Your task to perform on an android device: toggle notifications settings in the gmail app Image 0: 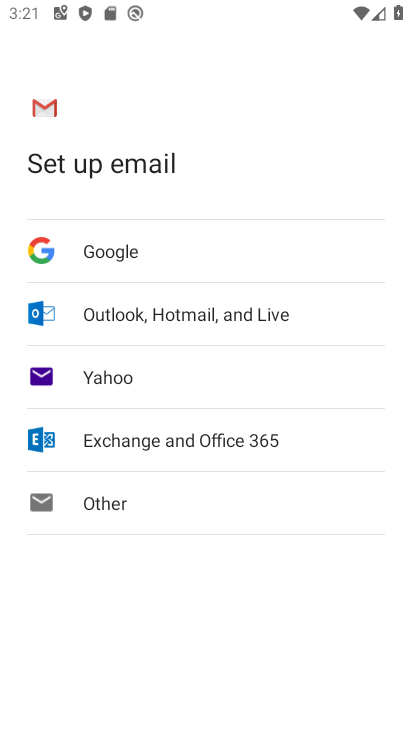
Step 0: press back button
Your task to perform on an android device: toggle notifications settings in the gmail app Image 1: 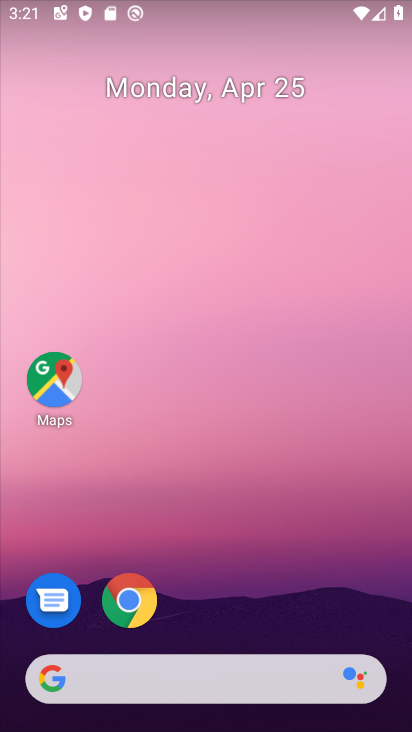
Step 1: drag from (254, 472) to (276, 29)
Your task to perform on an android device: toggle notifications settings in the gmail app Image 2: 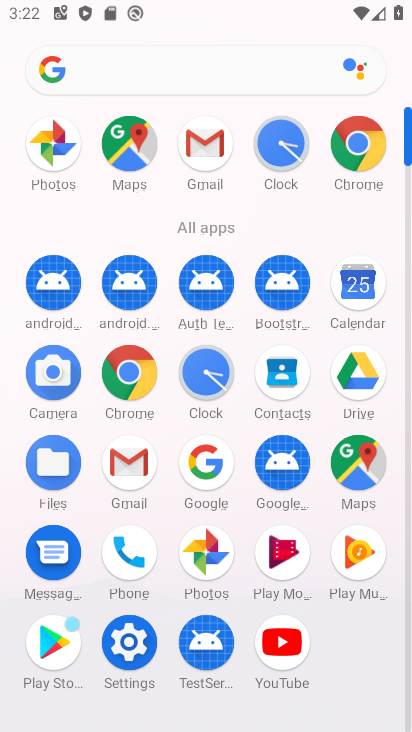
Step 2: drag from (8, 498) to (20, 220)
Your task to perform on an android device: toggle notifications settings in the gmail app Image 3: 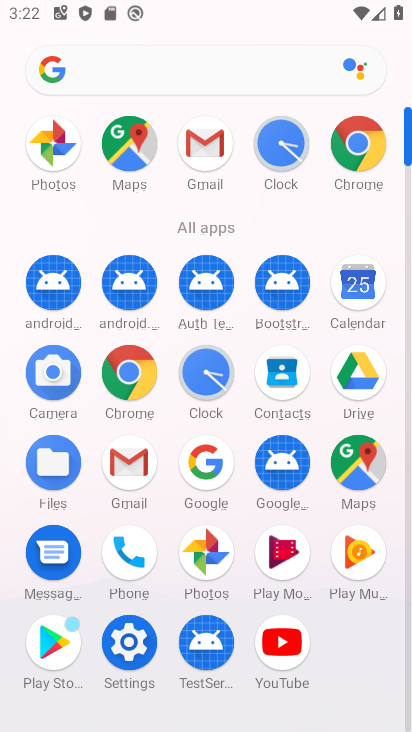
Step 3: click (130, 456)
Your task to perform on an android device: toggle notifications settings in the gmail app Image 4: 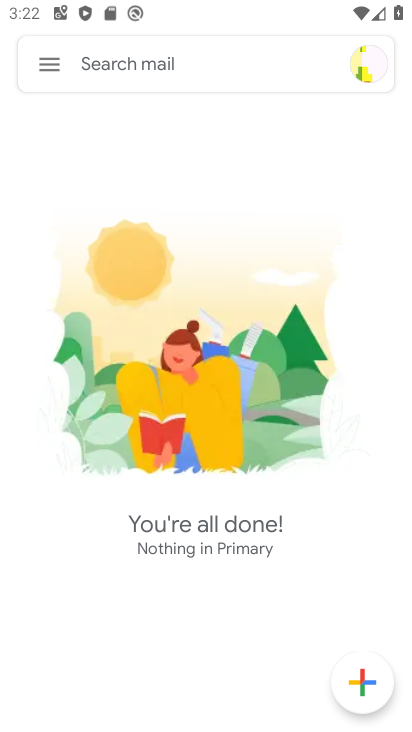
Step 4: click (62, 70)
Your task to perform on an android device: toggle notifications settings in the gmail app Image 5: 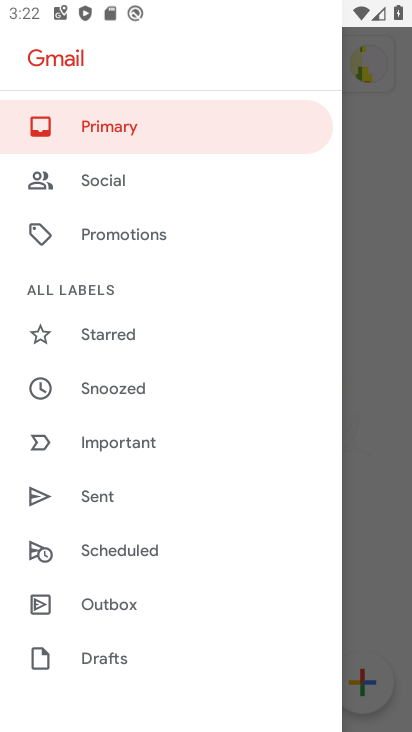
Step 5: drag from (174, 243) to (179, 171)
Your task to perform on an android device: toggle notifications settings in the gmail app Image 6: 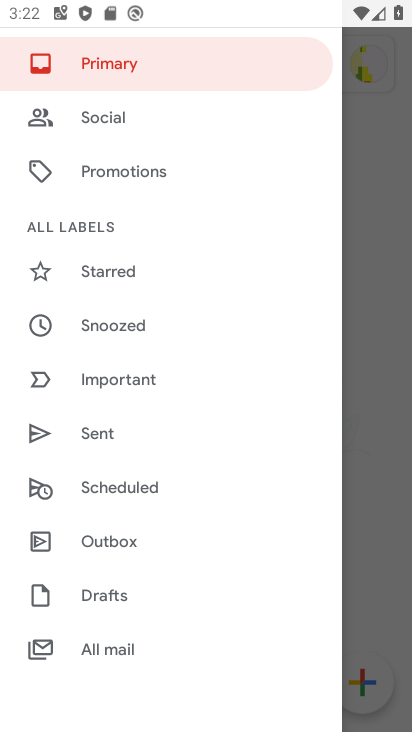
Step 6: drag from (168, 503) to (191, 198)
Your task to perform on an android device: toggle notifications settings in the gmail app Image 7: 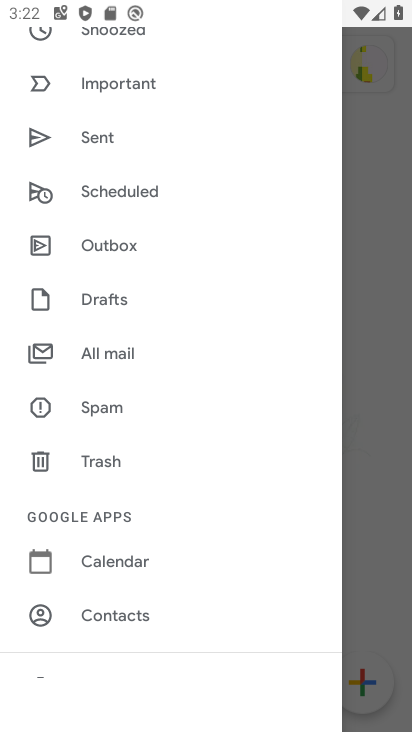
Step 7: drag from (174, 523) to (187, 86)
Your task to perform on an android device: toggle notifications settings in the gmail app Image 8: 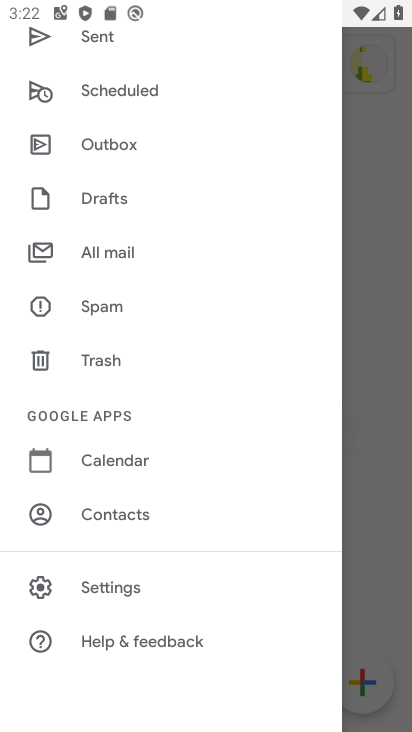
Step 8: drag from (205, 513) to (215, 64)
Your task to perform on an android device: toggle notifications settings in the gmail app Image 9: 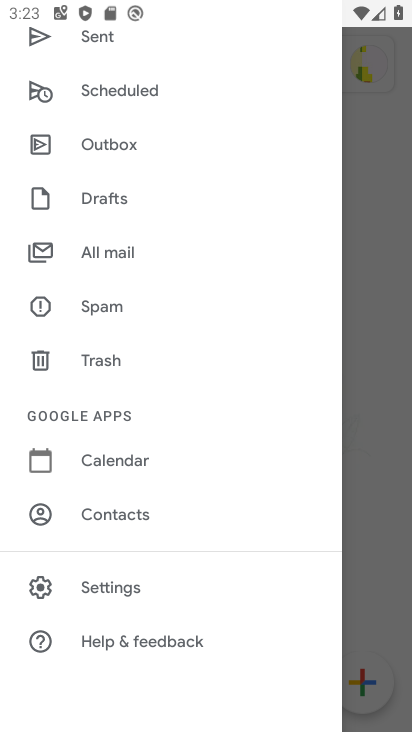
Step 9: click (141, 587)
Your task to perform on an android device: toggle notifications settings in the gmail app Image 10: 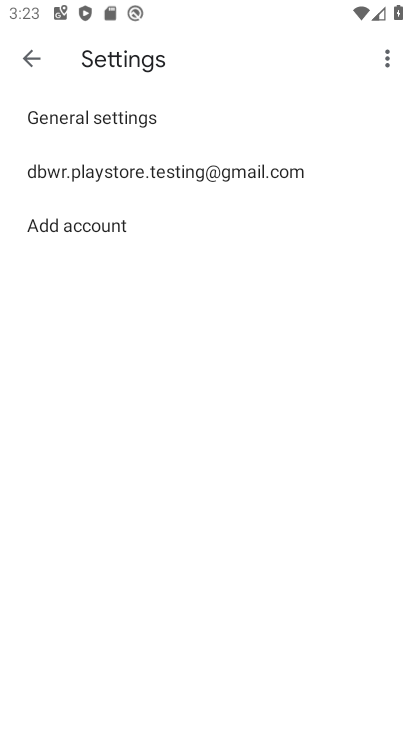
Step 10: click (179, 167)
Your task to perform on an android device: toggle notifications settings in the gmail app Image 11: 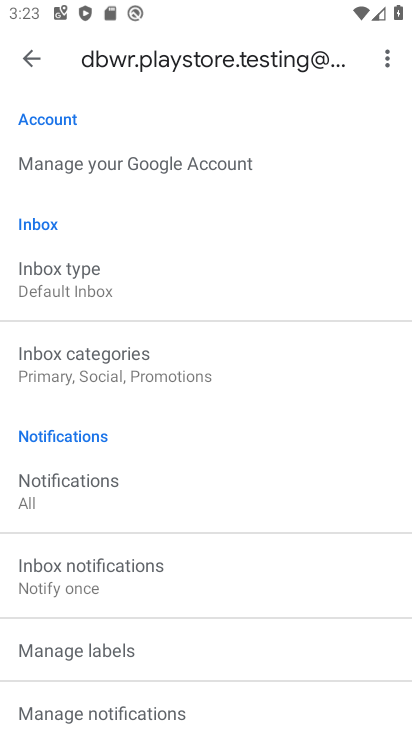
Step 11: drag from (226, 482) to (219, 193)
Your task to perform on an android device: toggle notifications settings in the gmail app Image 12: 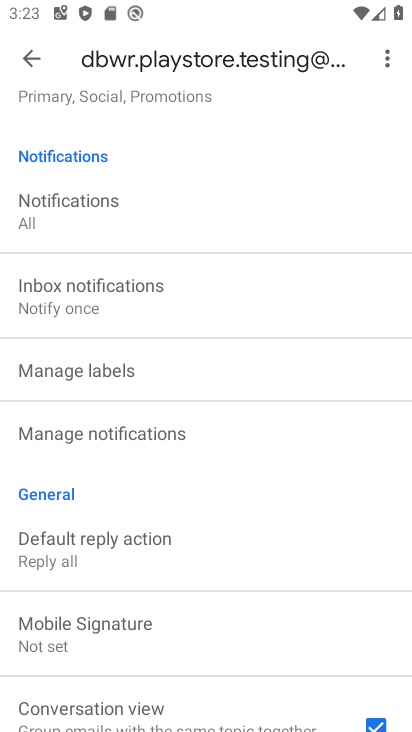
Step 12: drag from (231, 158) to (225, 546)
Your task to perform on an android device: toggle notifications settings in the gmail app Image 13: 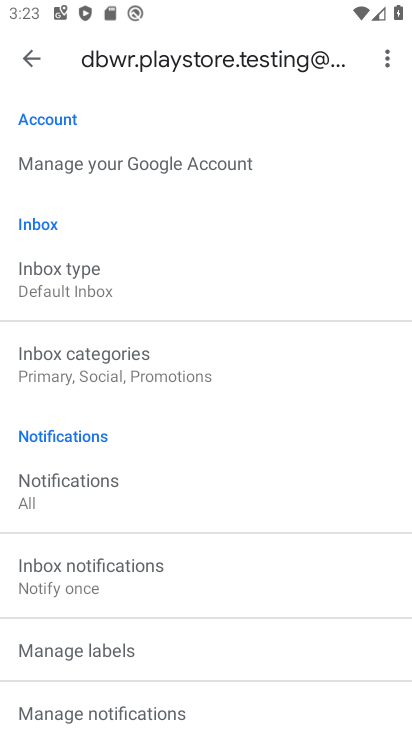
Step 13: drag from (274, 203) to (255, 574)
Your task to perform on an android device: toggle notifications settings in the gmail app Image 14: 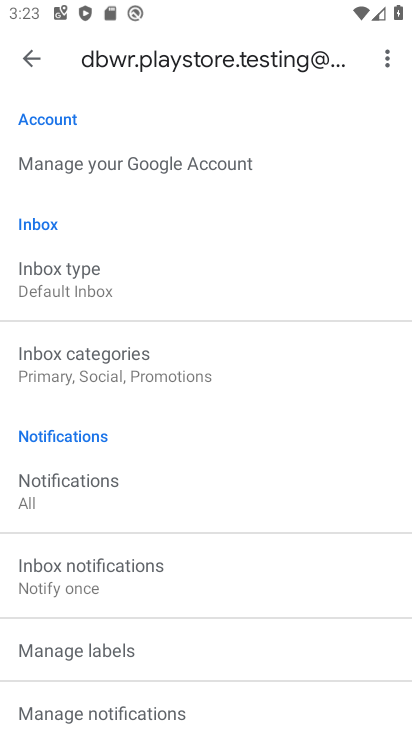
Step 14: drag from (222, 470) to (238, 188)
Your task to perform on an android device: toggle notifications settings in the gmail app Image 15: 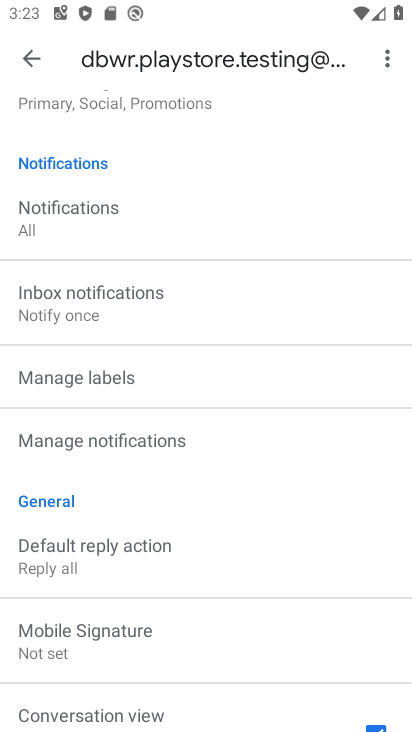
Step 15: click (156, 439)
Your task to perform on an android device: toggle notifications settings in the gmail app Image 16: 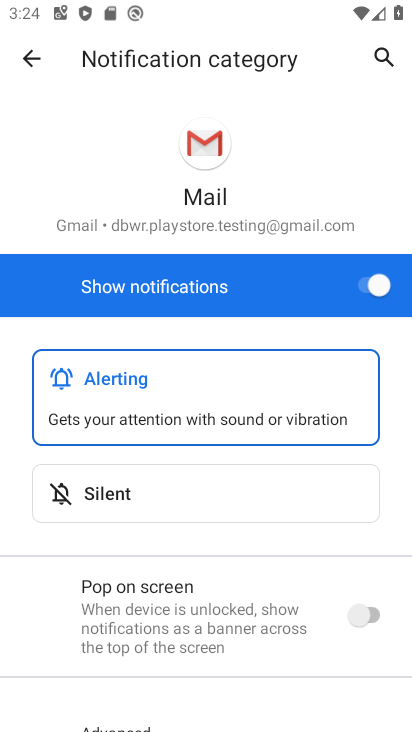
Step 16: drag from (262, 606) to (275, 178)
Your task to perform on an android device: toggle notifications settings in the gmail app Image 17: 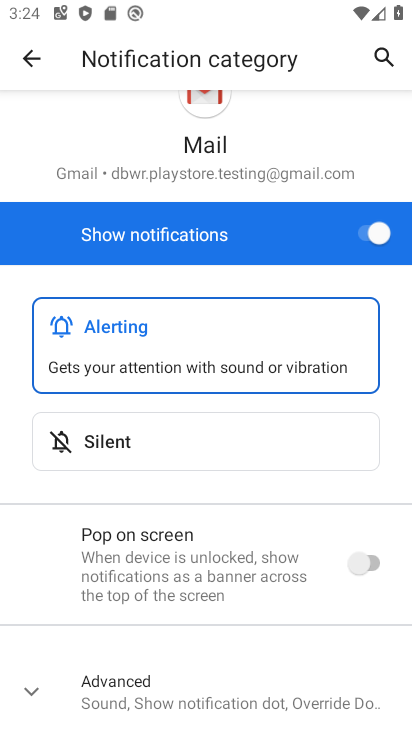
Step 17: click (180, 670)
Your task to perform on an android device: toggle notifications settings in the gmail app Image 18: 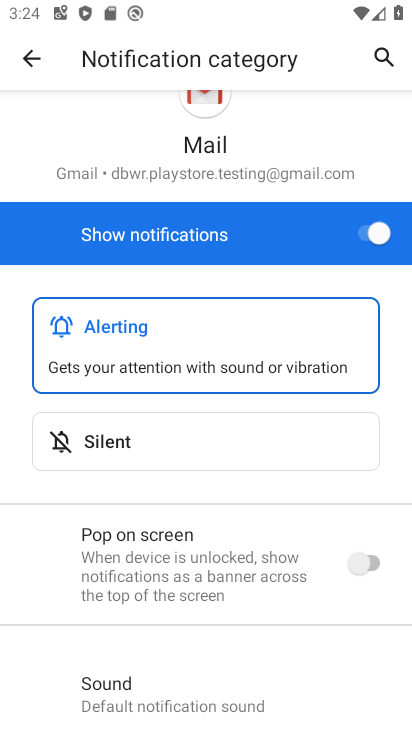
Step 18: drag from (218, 538) to (258, 142)
Your task to perform on an android device: toggle notifications settings in the gmail app Image 19: 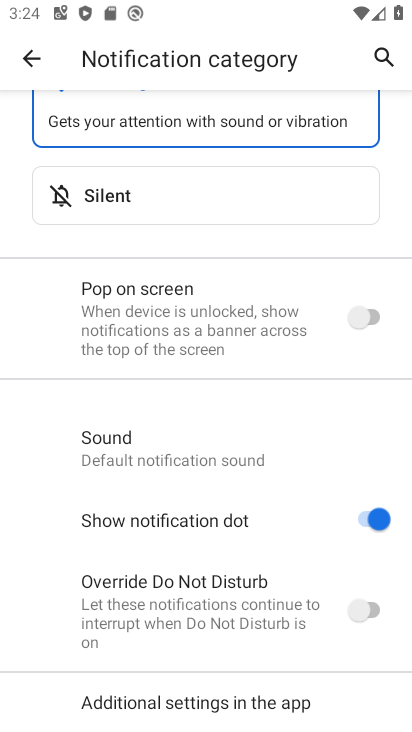
Step 19: drag from (284, 277) to (276, 617)
Your task to perform on an android device: toggle notifications settings in the gmail app Image 20: 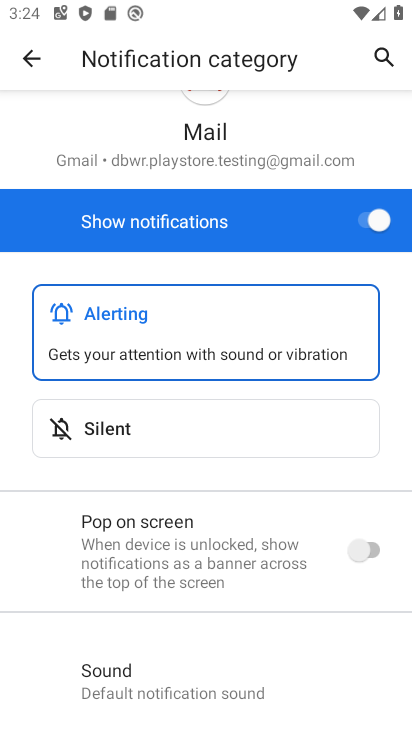
Step 20: drag from (253, 161) to (195, 577)
Your task to perform on an android device: toggle notifications settings in the gmail app Image 21: 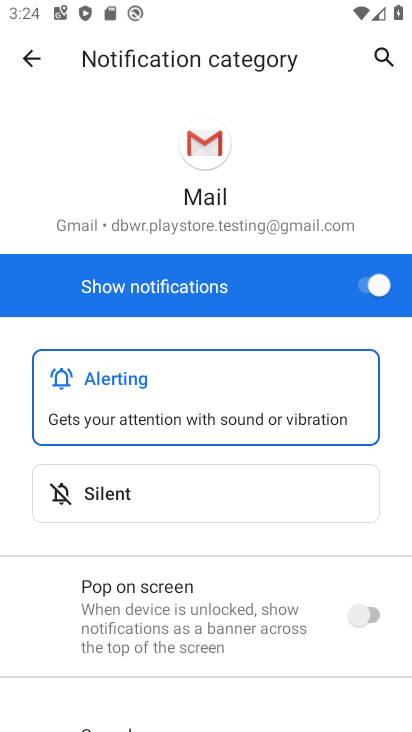
Step 21: click (378, 277)
Your task to perform on an android device: toggle notifications settings in the gmail app Image 22: 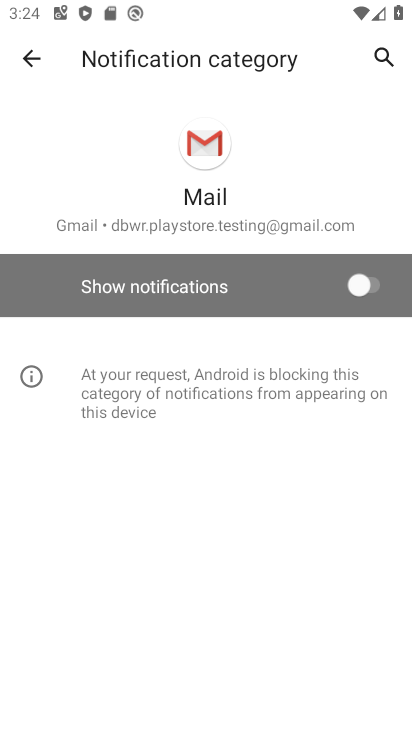
Step 22: task complete